Your task to perform on an android device: install app "Facebook Lite" Image 0: 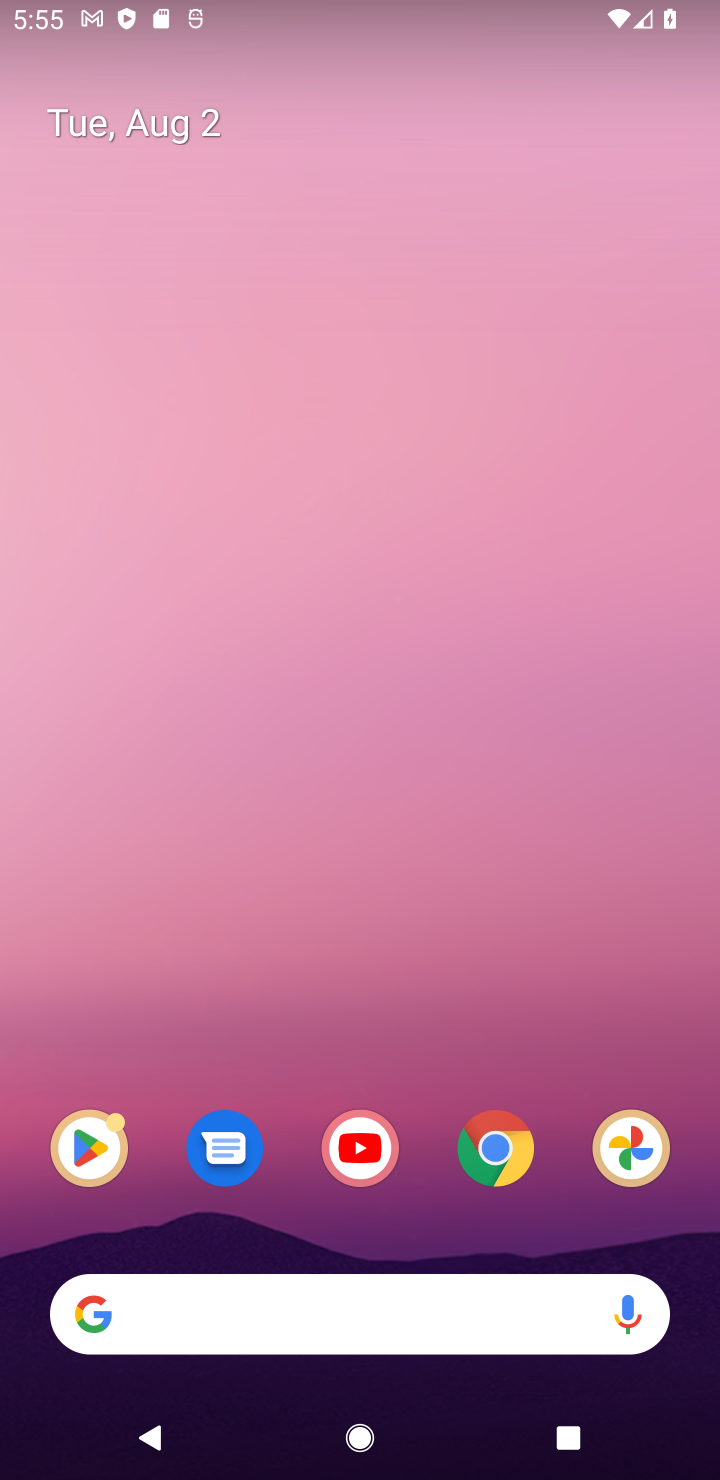
Step 0: drag from (587, 994) to (344, 60)
Your task to perform on an android device: install app "Facebook Lite" Image 1: 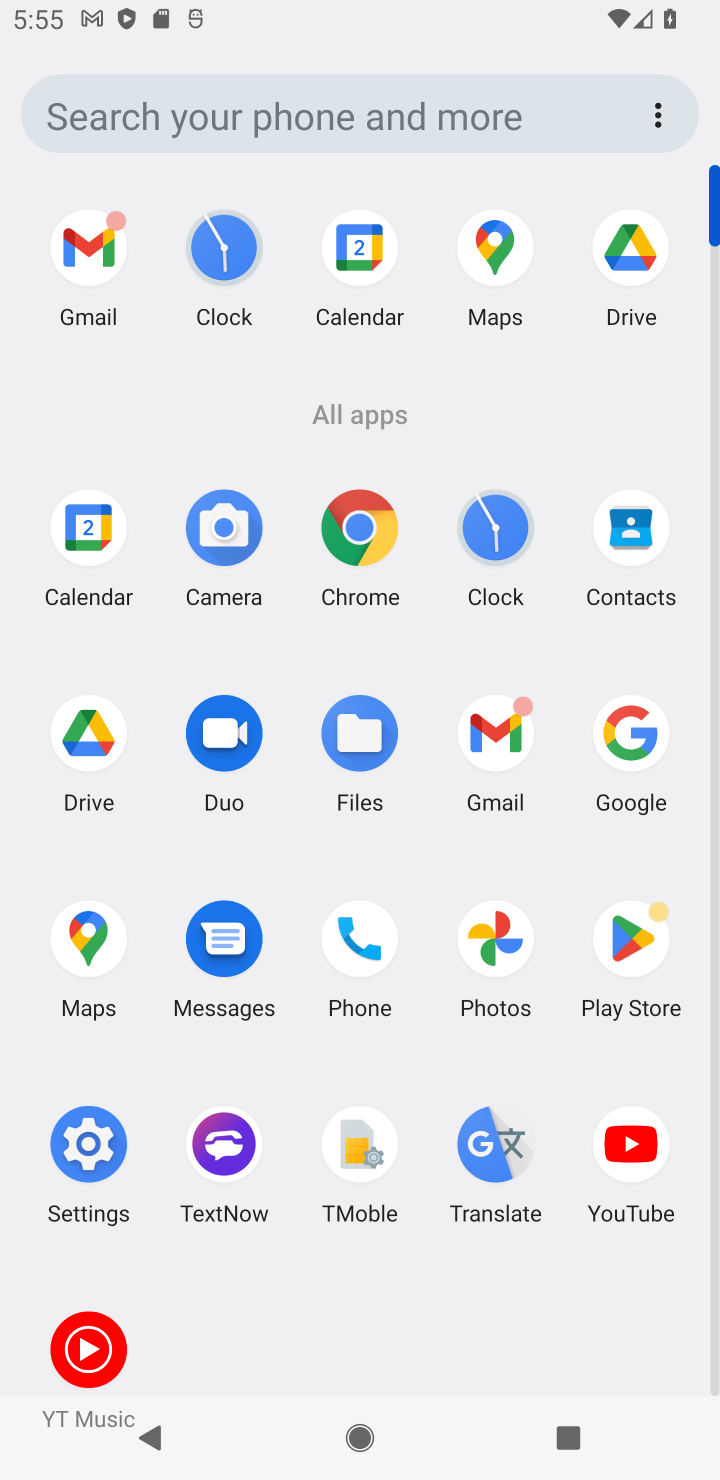
Step 1: click (627, 930)
Your task to perform on an android device: install app "Facebook Lite" Image 2: 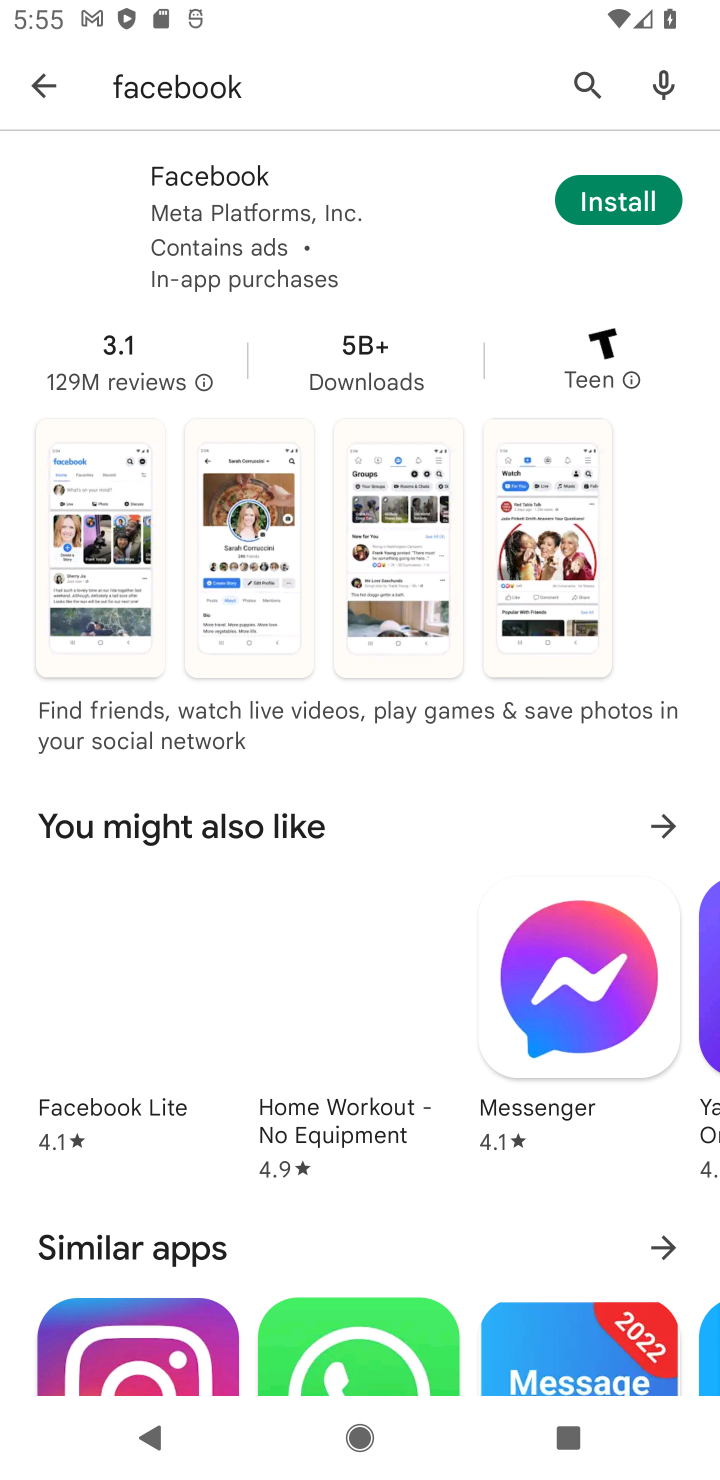
Step 2: press back button
Your task to perform on an android device: install app "Facebook Lite" Image 3: 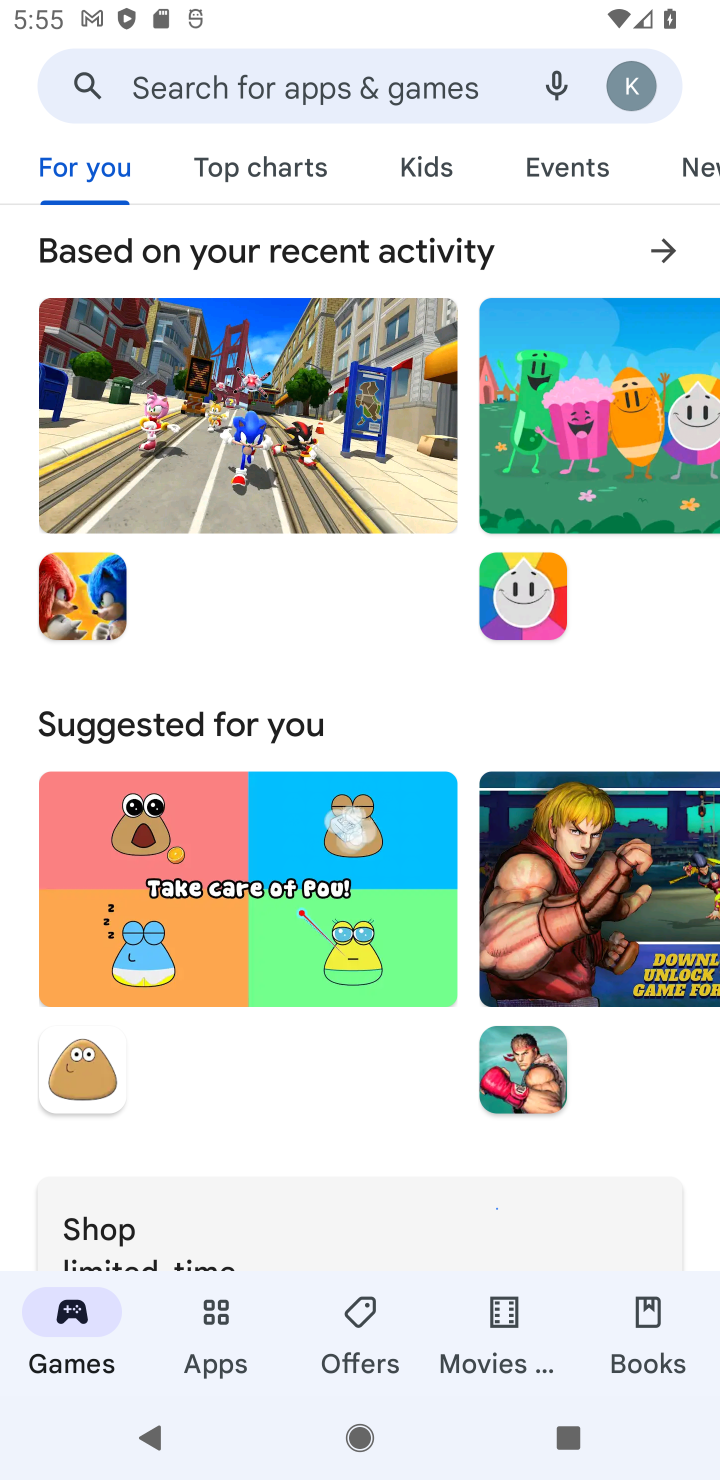
Step 3: click (207, 99)
Your task to perform on an android device: install app "Facebook Lite" Image 4: 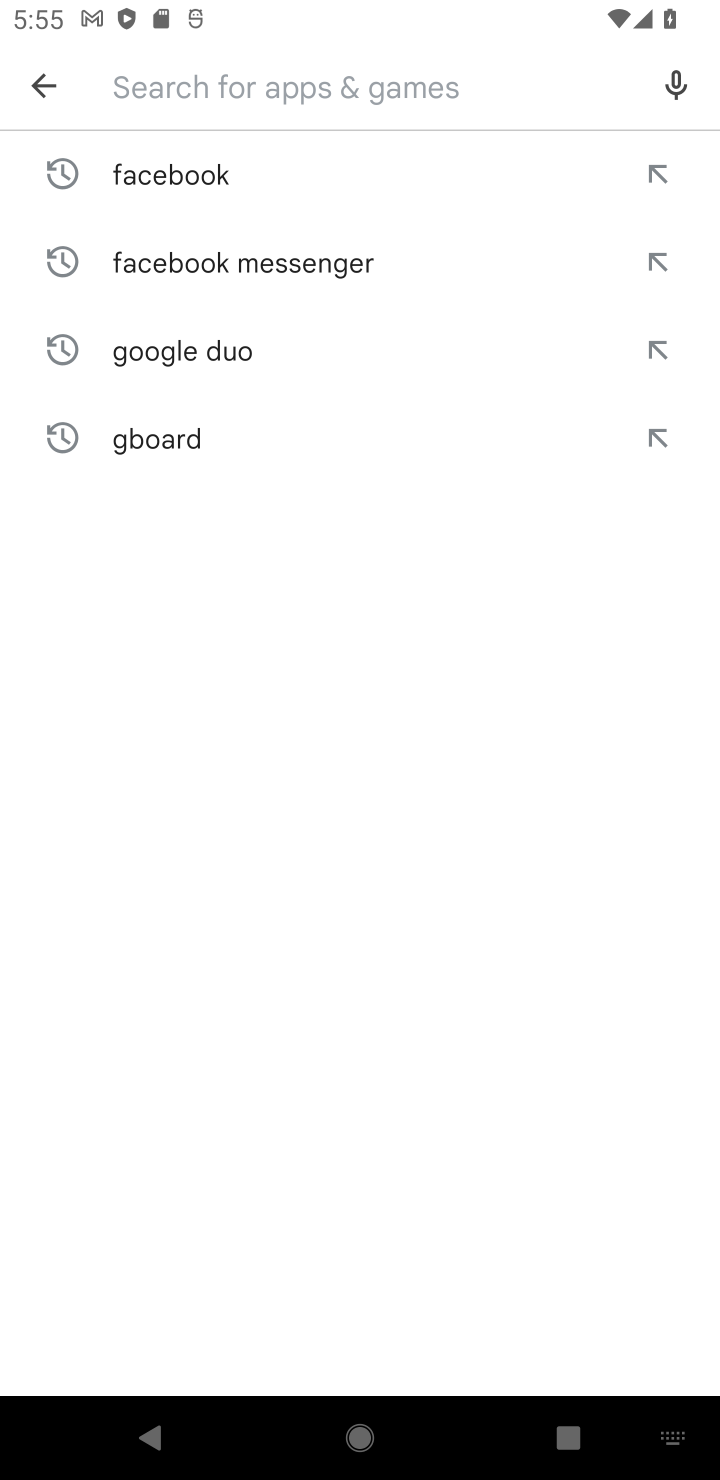
Step 4: type "Facebook Lite"
Your task to perform on an android device: install app "Facebook Lite" Image 5: 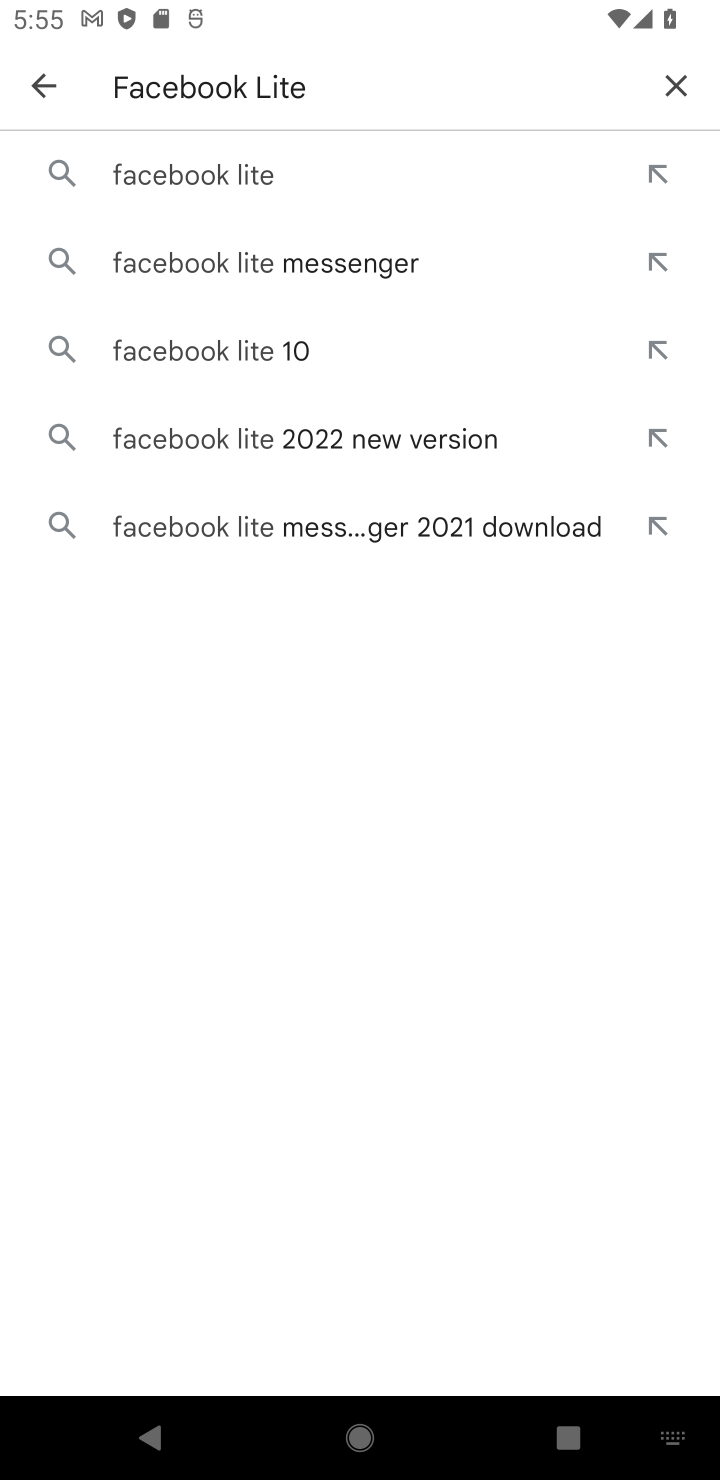
Step 5: click (208, 178)
Your task to perform on an android device: install app "Facebook Lite" Image 6: 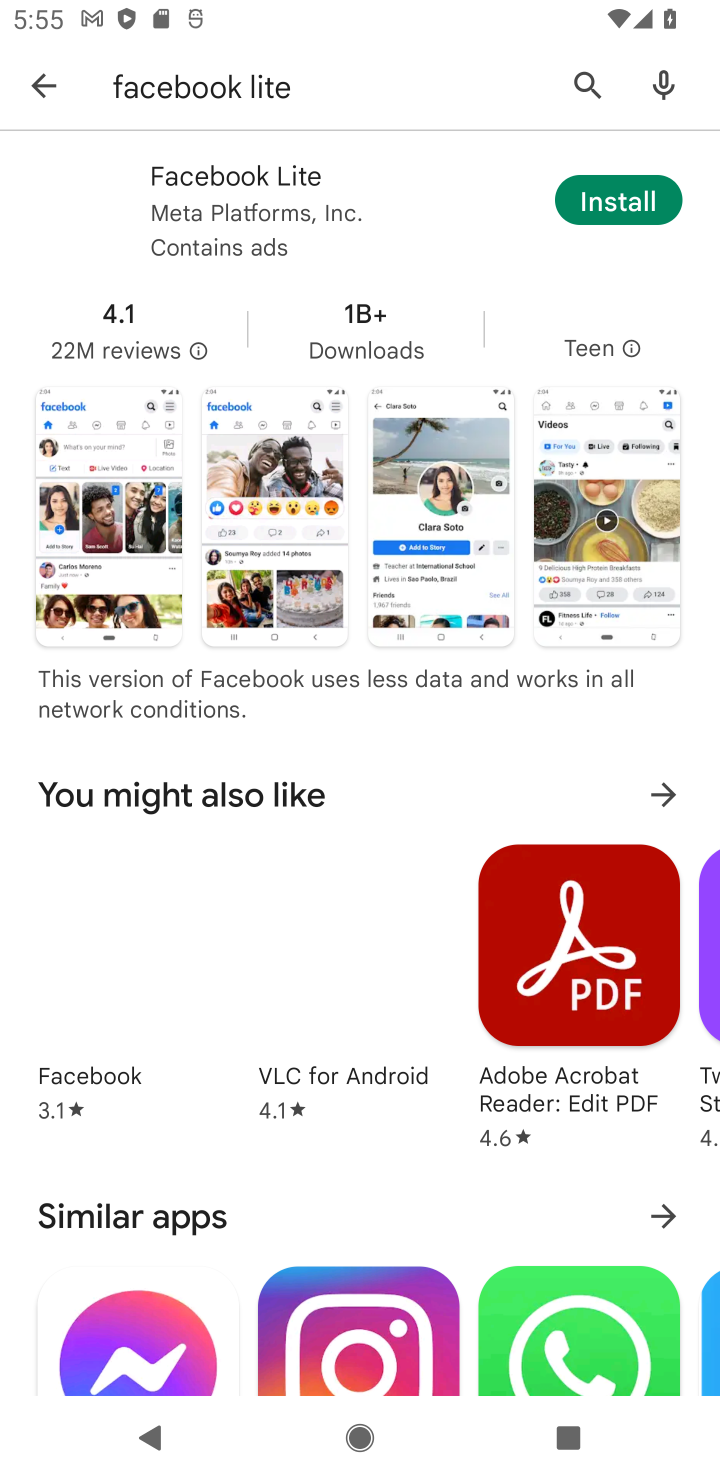
Step 6: click (629, 199)
Your task to perform on an android device: install app "Facebook Lite" Image 7: 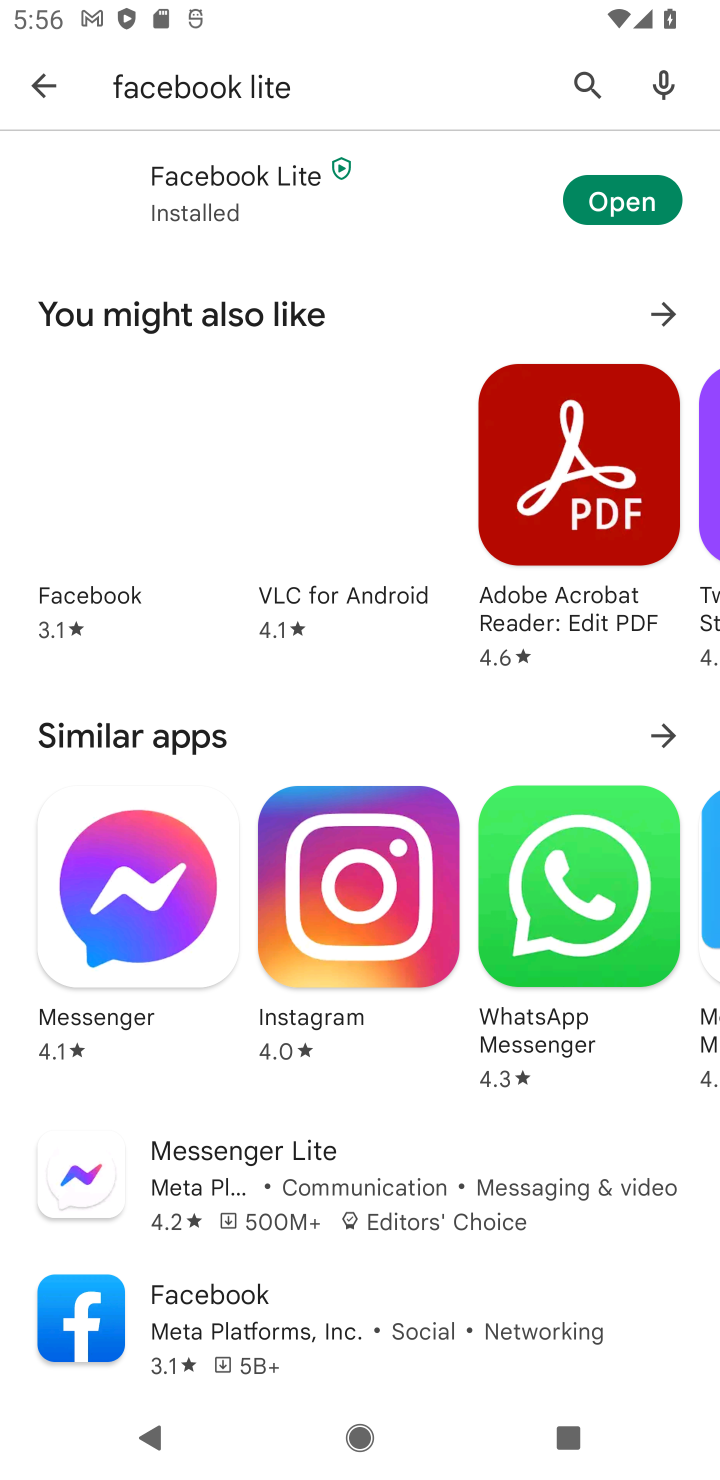
Step 7: task complete